Your task to perform on an android device: change the clock style Image 0: 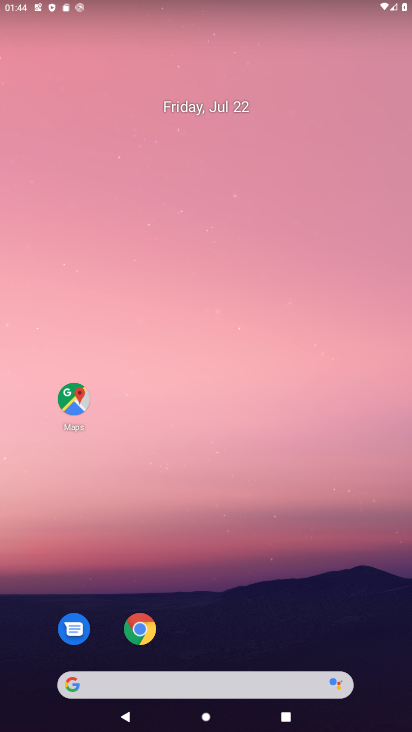
Step 0: drag from (48, 564) to (254, 44)
Your task to perform on an android device: change the clock style Image 1: 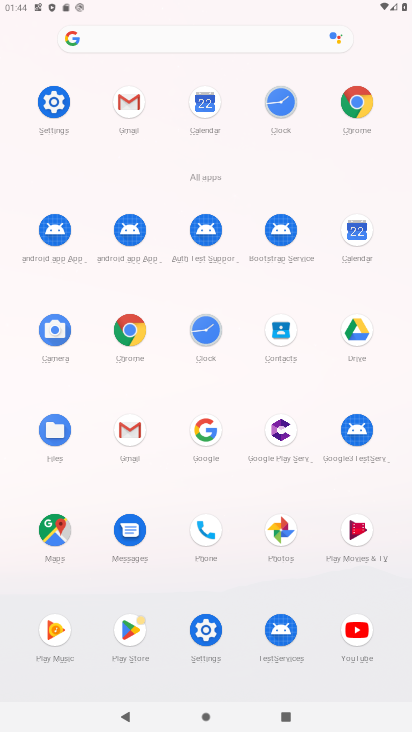
Step 1: click (279, 110)
Your task to perform on an android device: change the clock style Image 2: 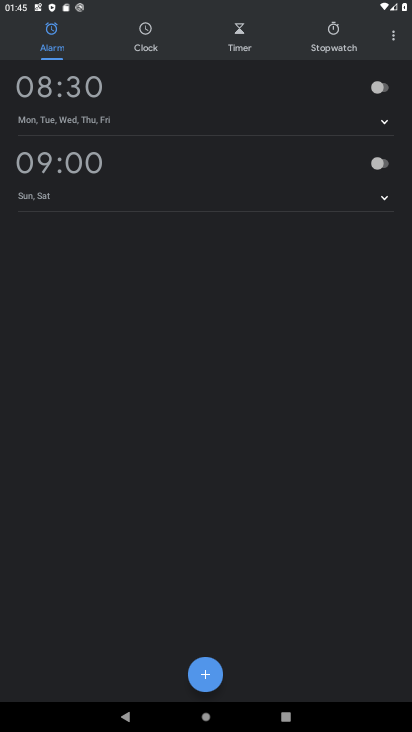
Step 2: click (388, 31)
Your task to perform on an android device: change the clock style Image 3: 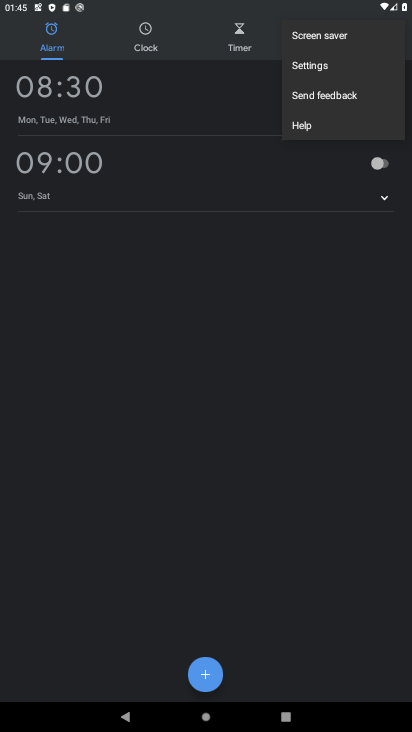
Step 3: click (327, 71)
Your task to perform on an android device: change the clock style Image 4: 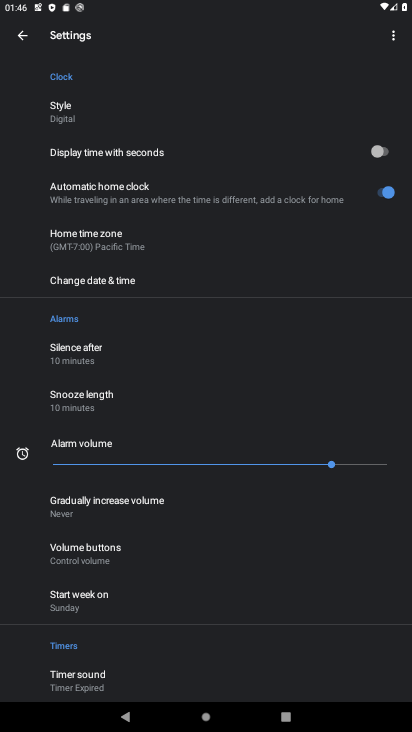
Step 4: click (87, 108)
Your task to perform on an android device: change the clock style Image 5: 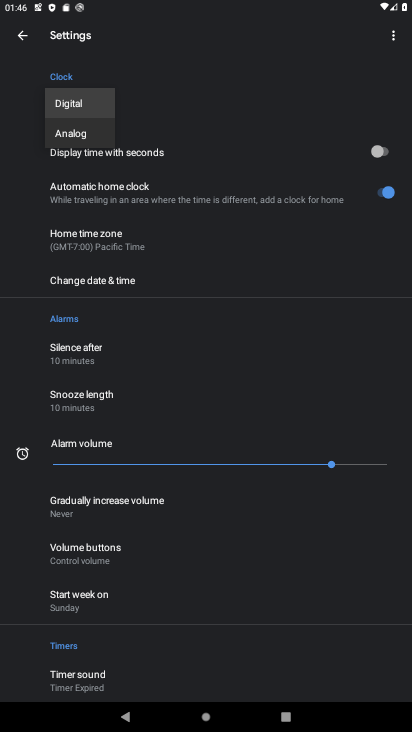
Step 5: click (82, 128)
Your task to perform on an android device: change the clock style Image 6: 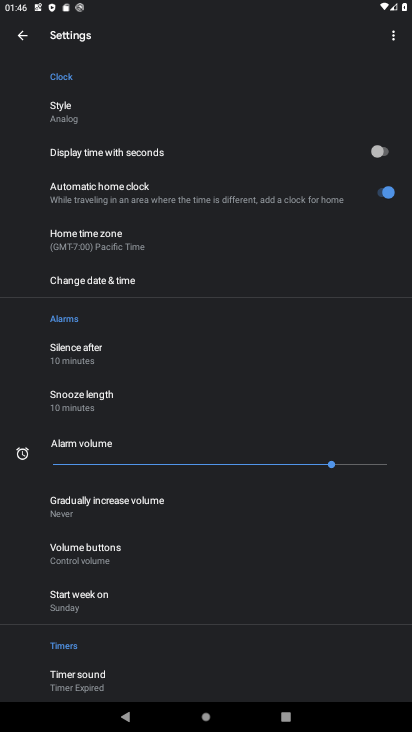
Step 6: task complete